Your task to perform on an android device: turn off priority inbox in the gmail app Image 0: 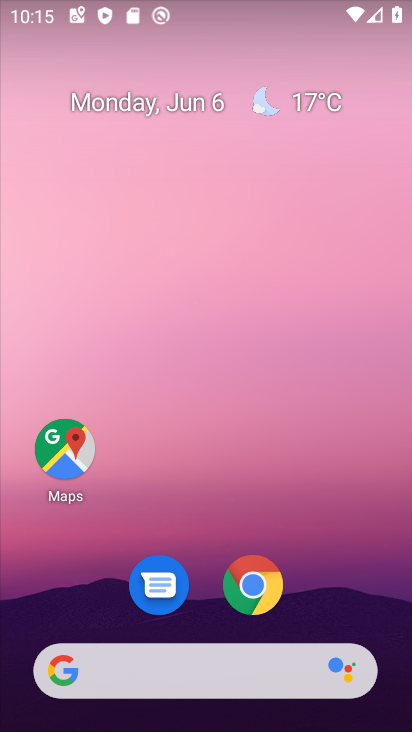
Step 0: drag from (221, 491) to (218, 11)
Your task to perform on an android device: turn off priority inbox in the gmail app Image 1: 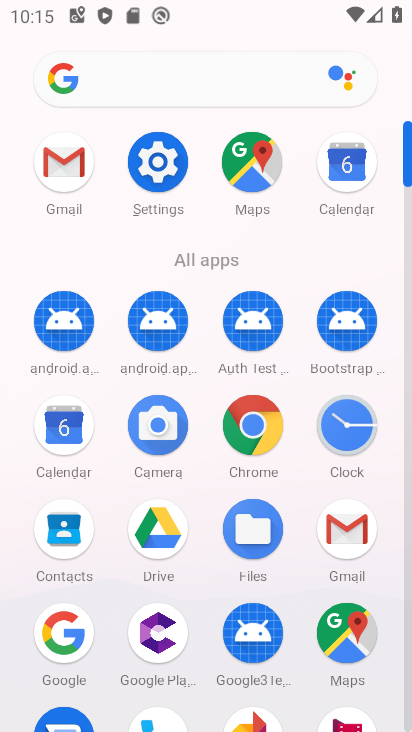
Step 1: click (74, 154)
Your task to perform on an android device: turn off priority inbox in the gmail app Image 2: 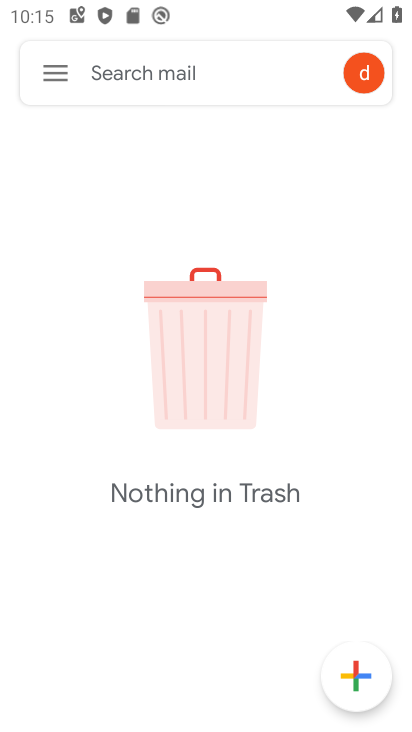
Step 2: click (55, 65)
Your task to perform on an android device: turn off priority inbox in the gmail app Image 3: 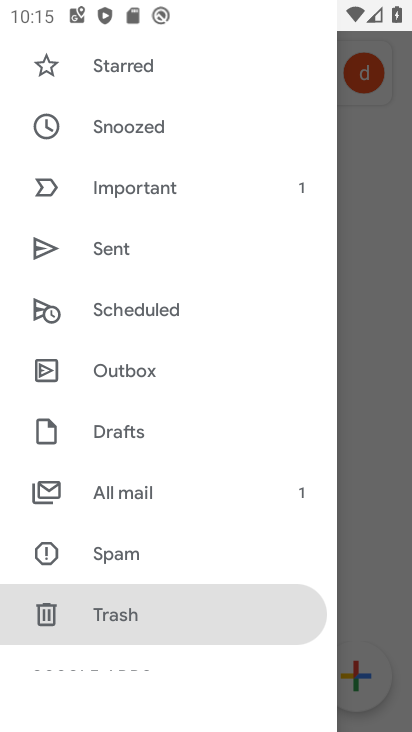
Step 3: drag from (173, 493) to (187, 168)
Your task to perform on an android device: turn off priority inbox in the gmail app Image 4: 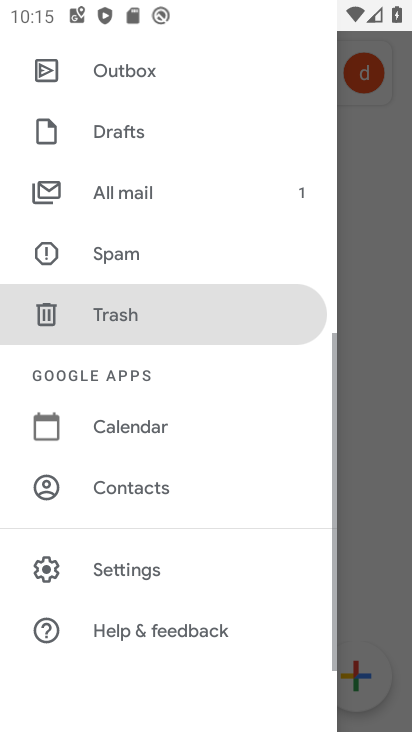
Step 4: click (138, 567)
Your task to perform on an android device: turn off priority inbox in the gmail app Image 5: 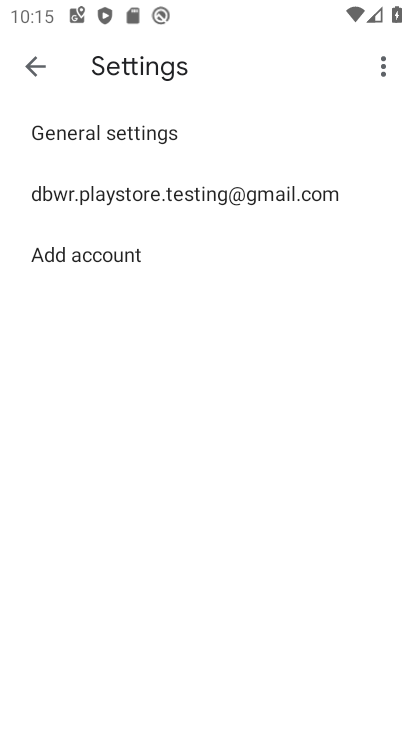
Step 5: click (246, 188)
Your task to perform on an android device: turn off priority inbox in the gmail app Image 6: 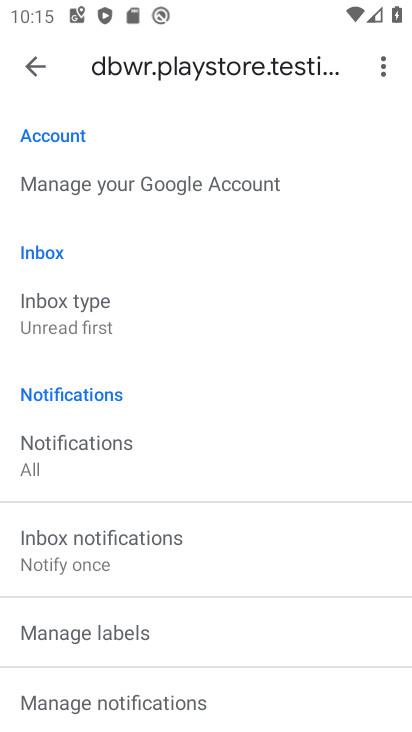
Step 6: click (105, 314)
Your task to perform on an android device: turn off priority inbox in the gmail app Image 7: 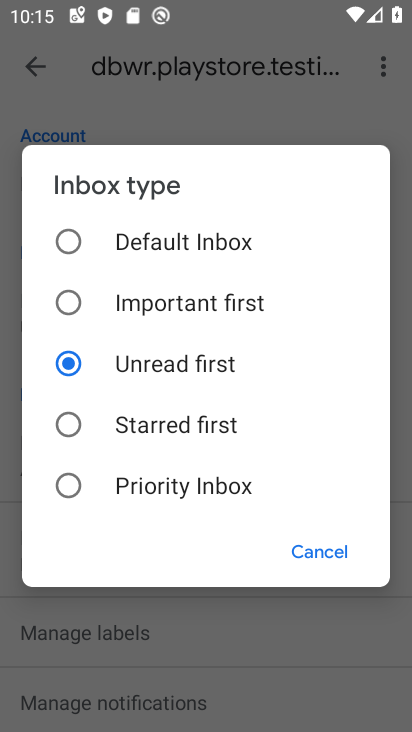
Step 7: click (82, 240)
Your task to perform on an android device: turn off priority inbox in the gmail app Image 8: 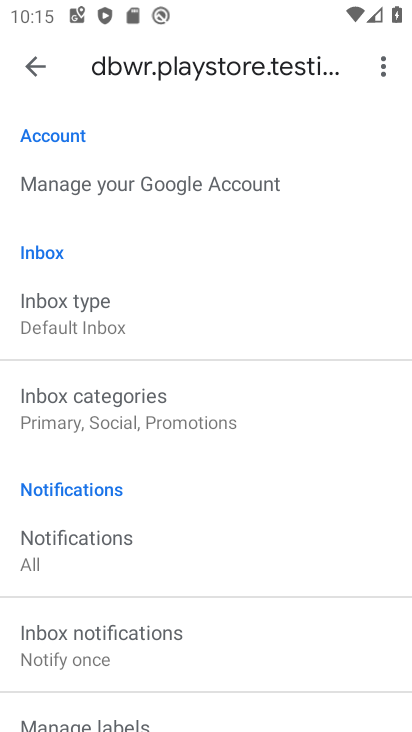
Step 8: task complete